Your task to perform on an android device: Go to battery settings Image 0: 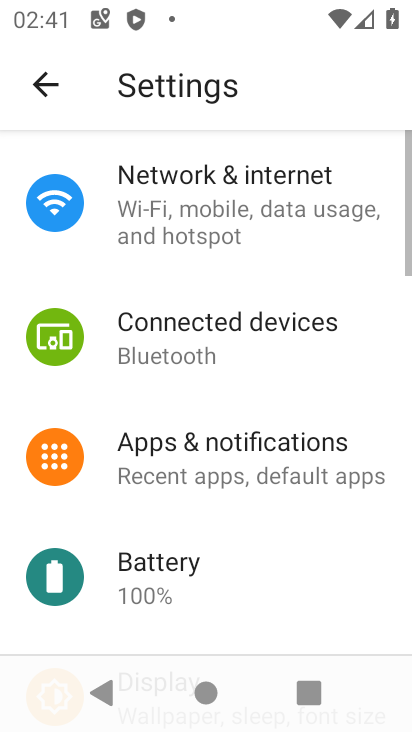
Step 0: press home button
Your task to perform on an android device: Go to battery settings Image 1: 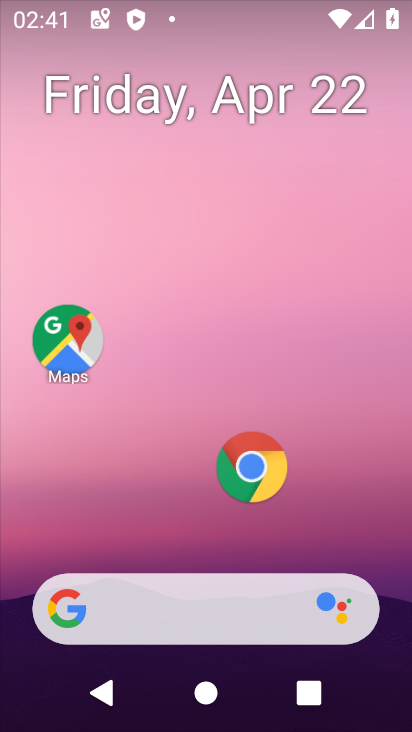
Step 1: drag from (161, 559) to (171, 143)
Your task to perform on an android device: Go to battery settings Image 2: 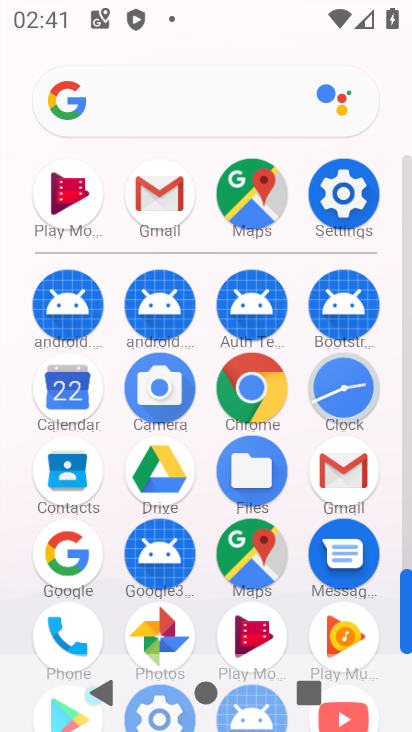
Step 2: click (331, 198)
Your task to perform on an android device: Go to battery settings Image 3: 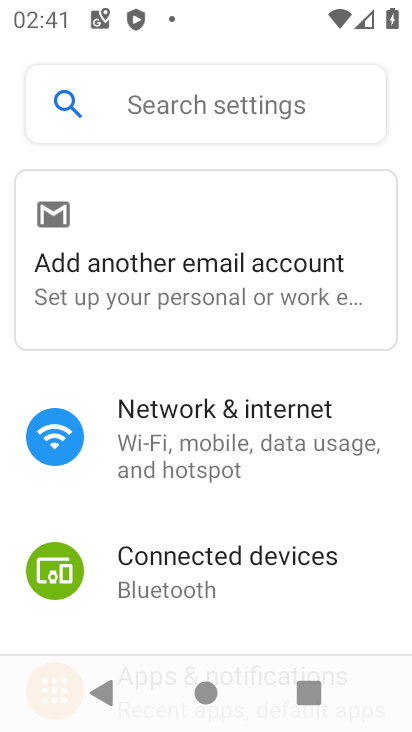
Step 3: drag from (241, 605) to (278, 181)
Your task to perform on an android device: Go to battery settings Image 4: 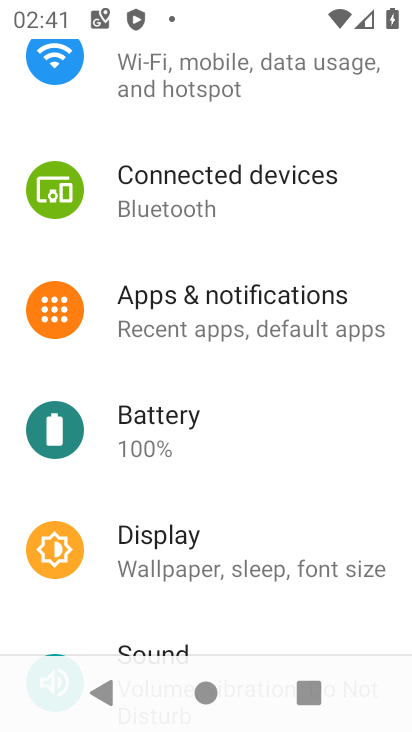
Step 4: click (178, 436)
Your task to perform on an android device: Go to battery settings Image 5: 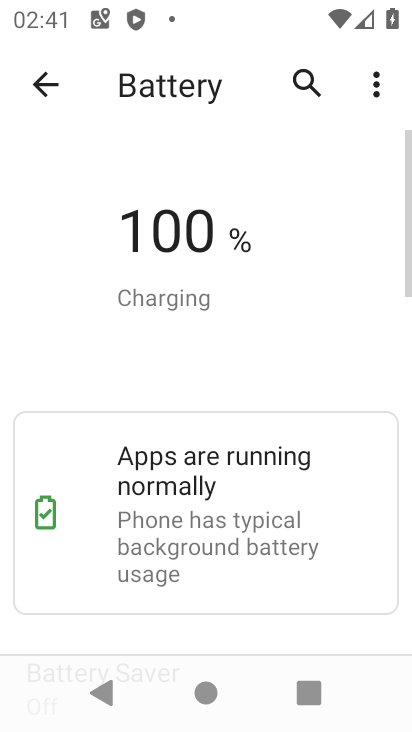
Step 5: task complete